Your task to perform on an android device: Go to eBay Image 0: 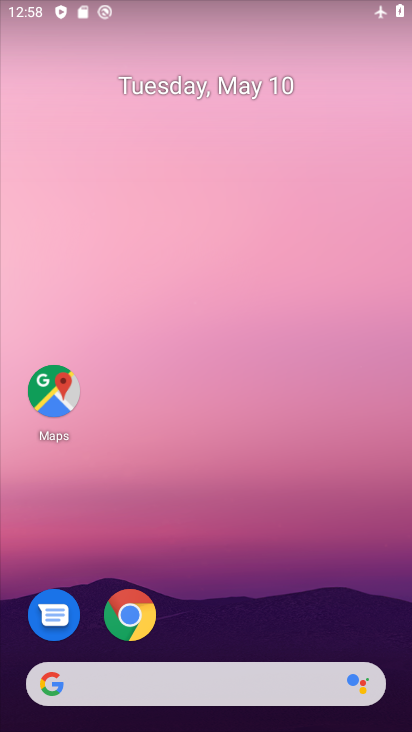
Step 0: click (136, 628)
Your task to perform on an android device: Go to eBay Image 1: 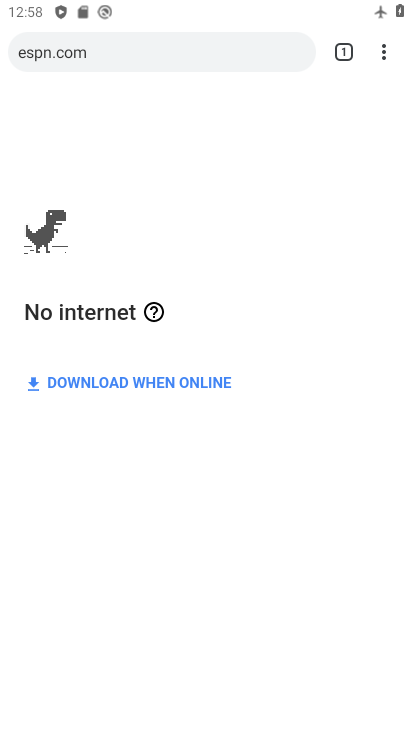
Step 1: click (171, 51)
Your task to perform on an android device: Go to eBay Image 2: 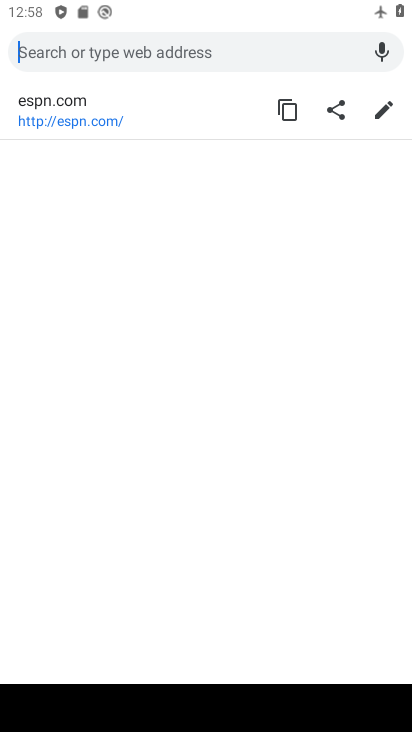
Step 2: drag from (311, 4) to (355, 328)
Your task to perform on an android device: Go to eBay Image 3: 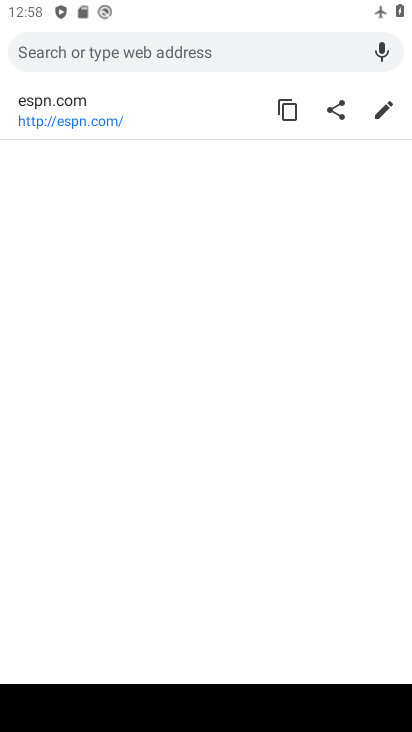
Step 3: drag from (383, 58) to (393, 403)
Your task to perform on an android device: Go to eBay Image 4: 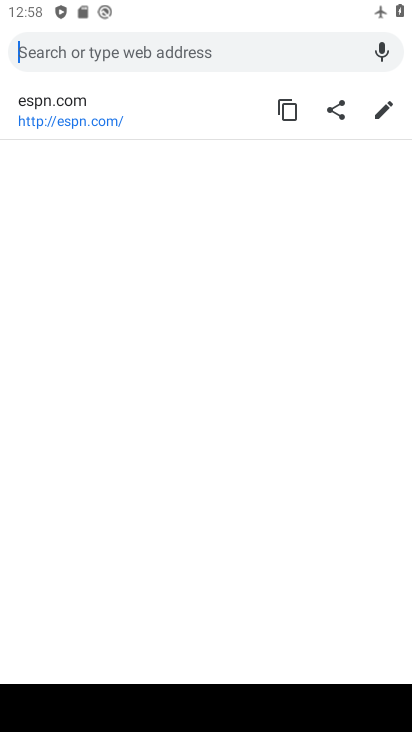
Step 4: drag from (259, 4) to (260, 335)
Your task to perform on an android device: Go to eBay Image 5: 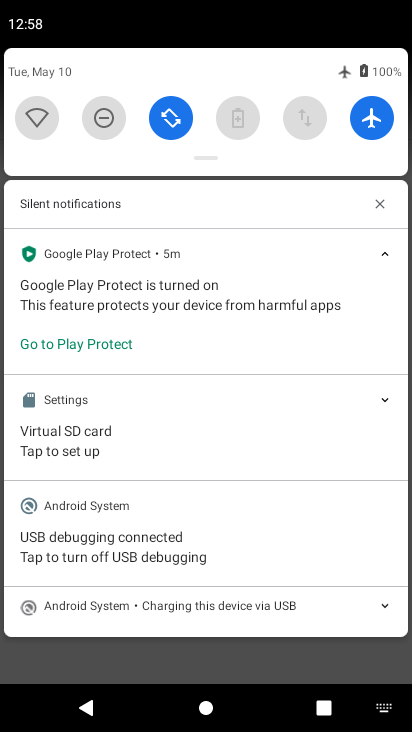
Step 5: click (375, 117)
Your task to perform on an android device: Go to eBay Image 6: 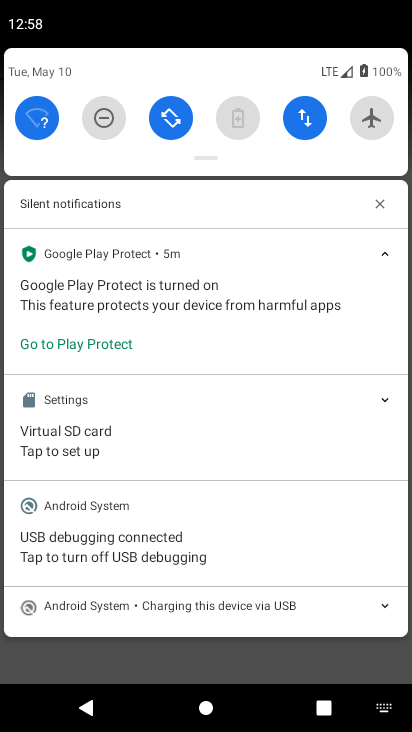
Step 6: drag from (342, 683) to (333, 176)
Your task to perform on an android device: Go to eBay Image 7: 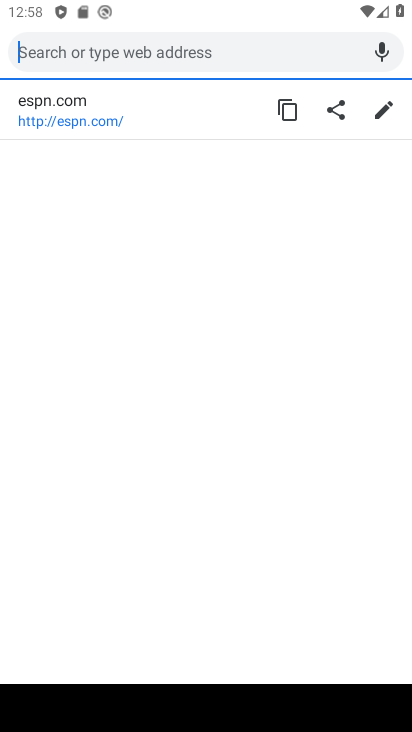
Step 7: type "eBay"
Your task to perform on an android device: Go to eBay Image 8: 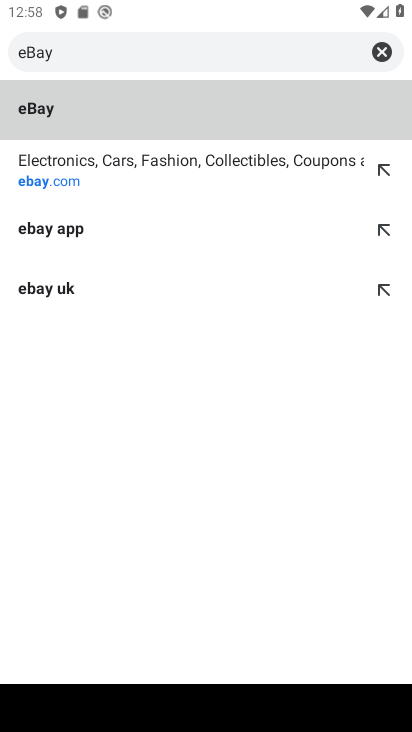
Step 8: click (94, 173)
Your task to perform on an android device: Go to eBay Image 9: 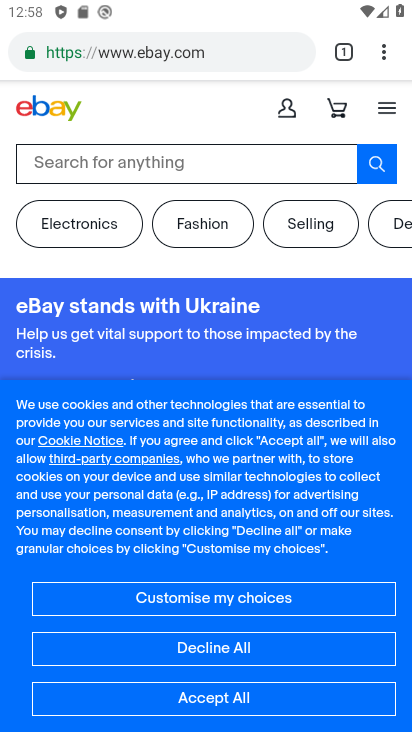
Step 9: task complete